Your task to perform on an android device: uninstall "Speedtest by Ookla" Image 0: 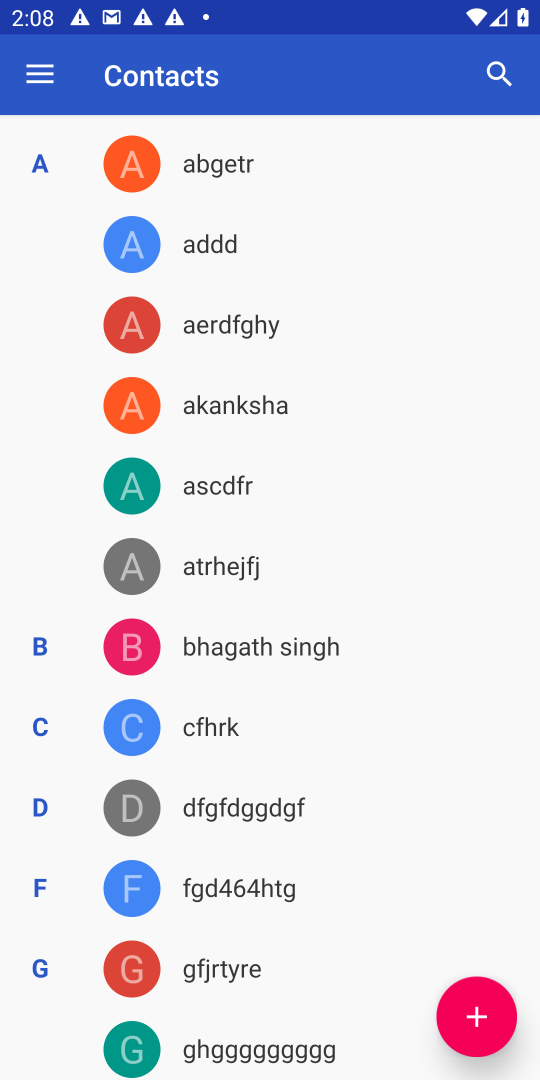
Step 0: press home button
Your task to perform on an android device: uninstall "Speedtest by Ookla" Image 1: 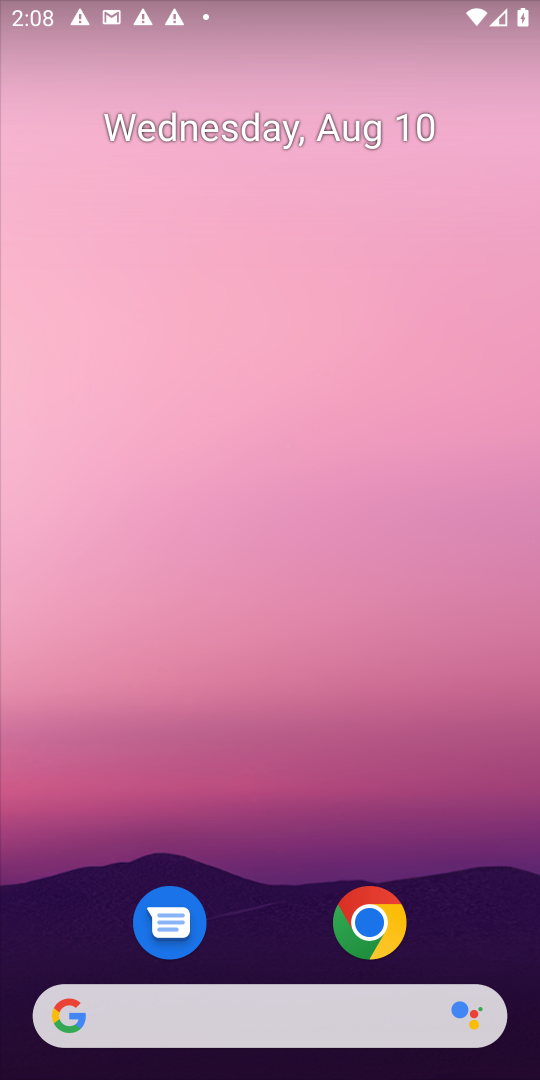
Step 1: drag from (272, 922) to (251, 297)
Your task to perform on an android device: uninstall "Speedtest by Ookla" Image 2: 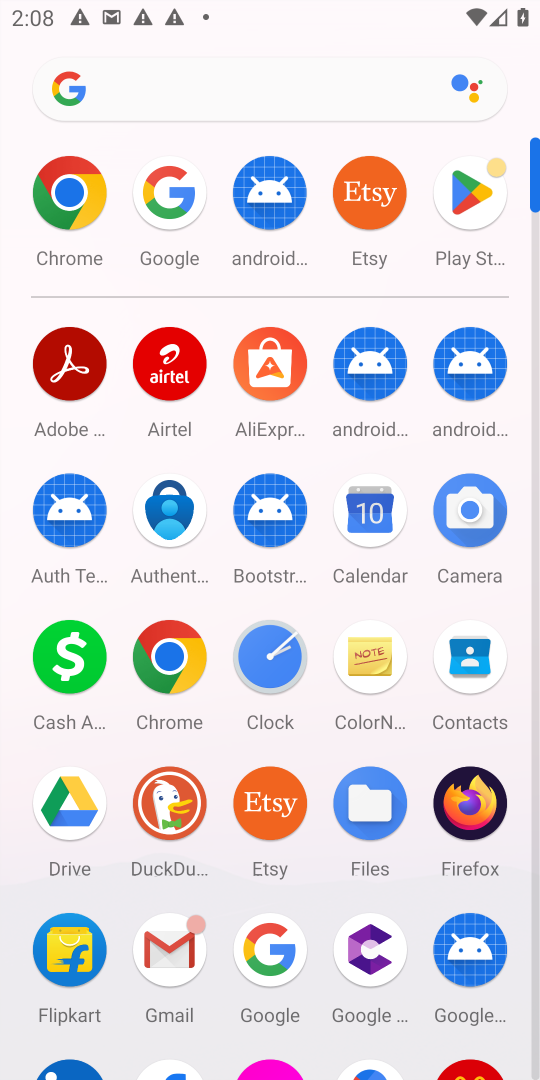
Step 2: click (479, 210)
Your task to perform on an android device: uninstall "Speedtest by Ookla" Image 3: 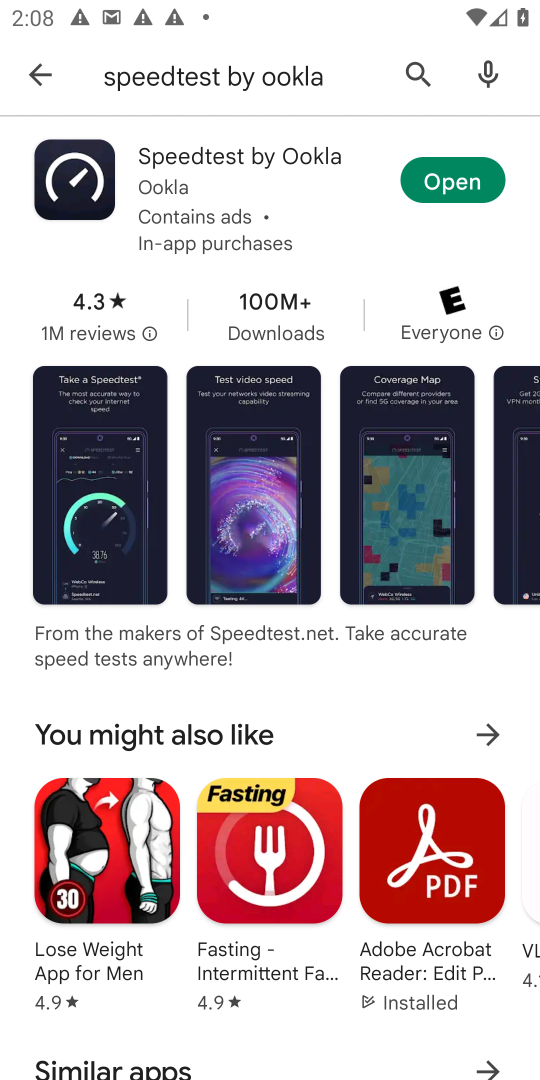
Step 3: click (40, 85)
Your task to perform on an android device: uninstall "Speedtest by Ookla" Image 4: 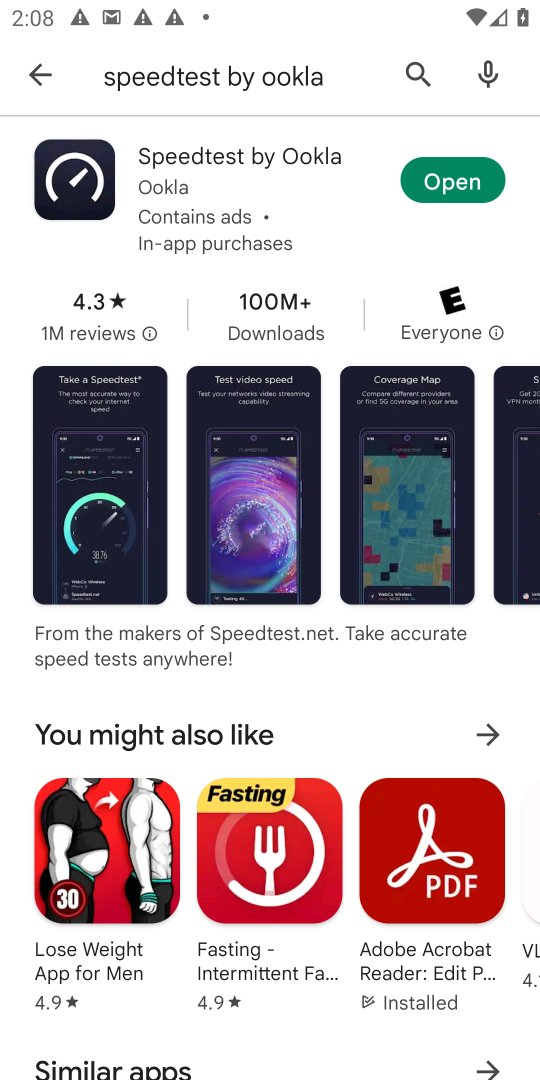
Step 4: click (46, 68)
Your task to perform on an android device: uninstall "Speedtest by Ookla" Image 5: 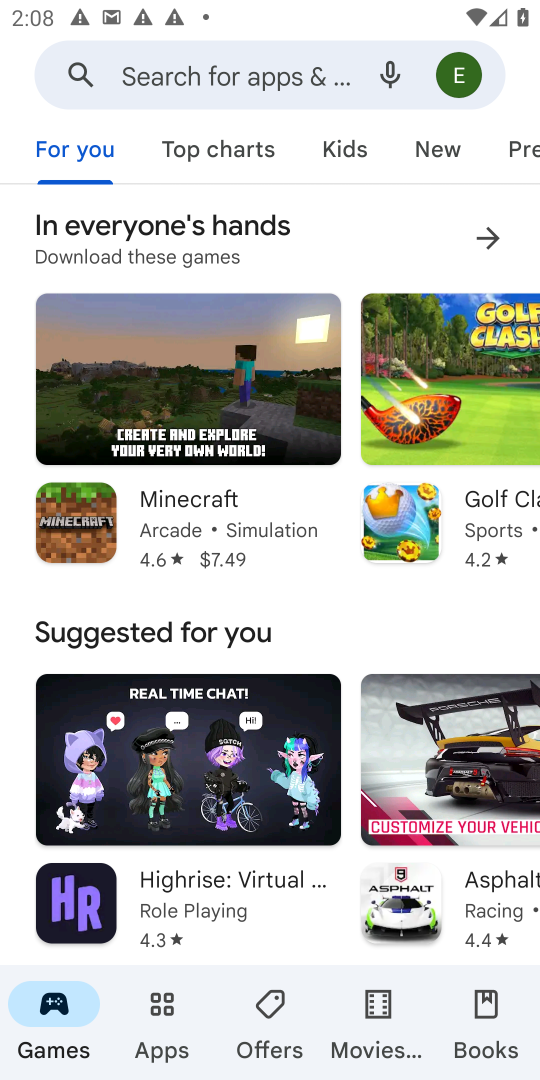
Step 5: click (183, 68)
Your task to perform on an android device: uninstall "Speedtest by Ookla" Image 6: 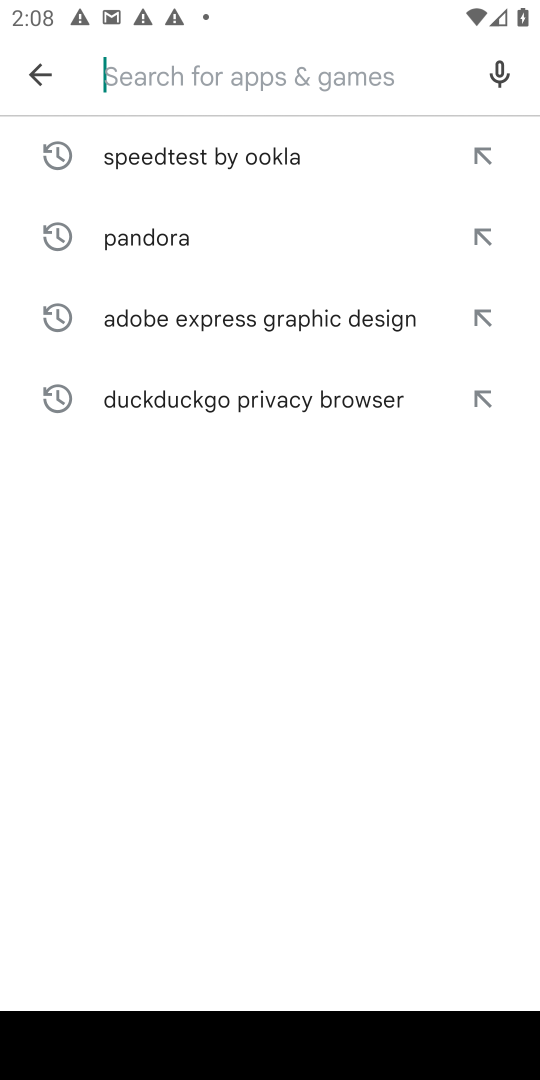
Step 6: type "Speedtest by Ookla"
Your task to perform on an android device: uninstall "Speedtest by Ookla" Image 7: 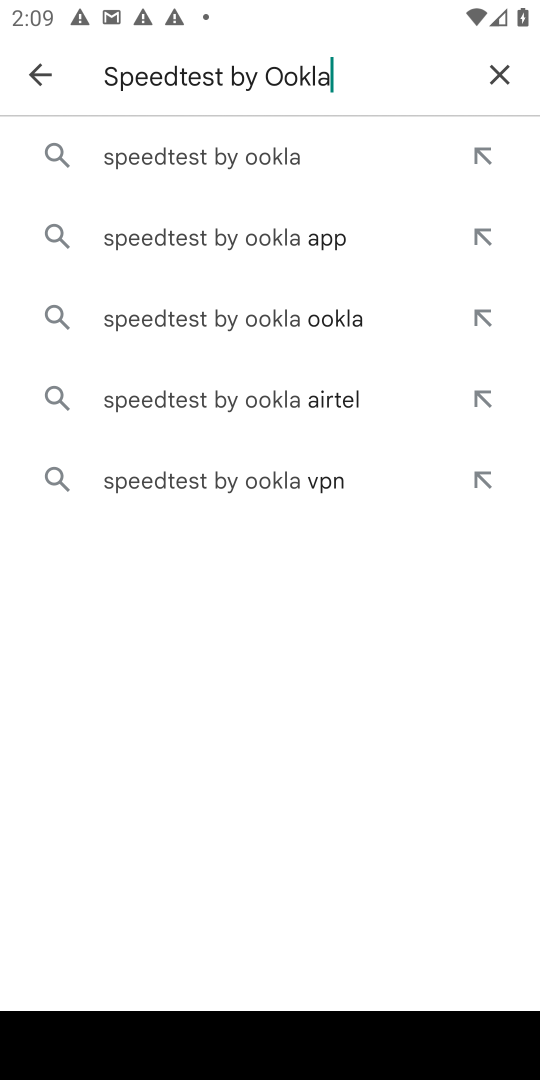
Step 7: click (208, 153)
Your task to perform on an android device: uninstall "Speedtest by Ookla" Image 8: 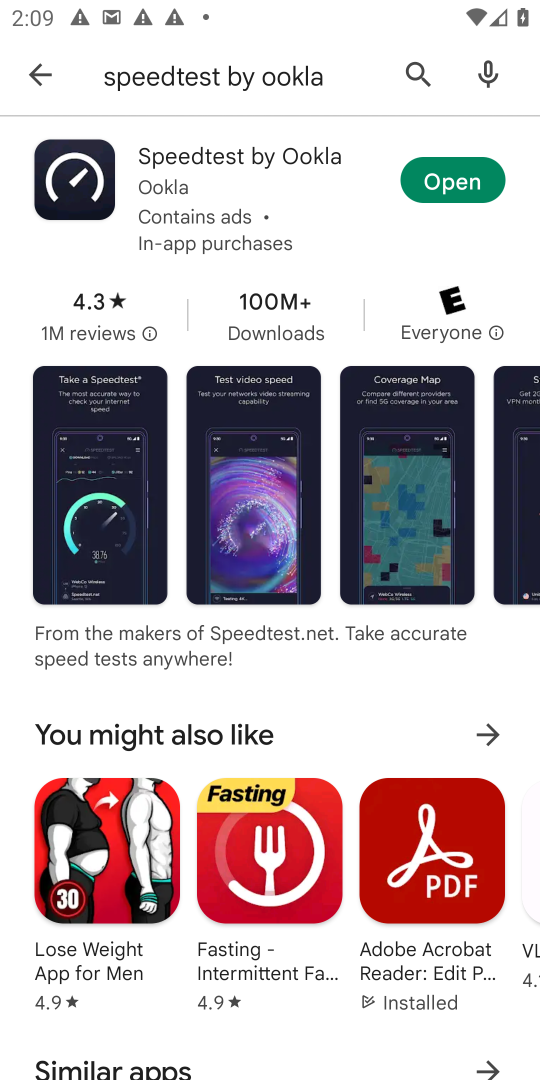
Step 8: task complete